Your task to perform on an android device: Go to ESPN.com Image 0: 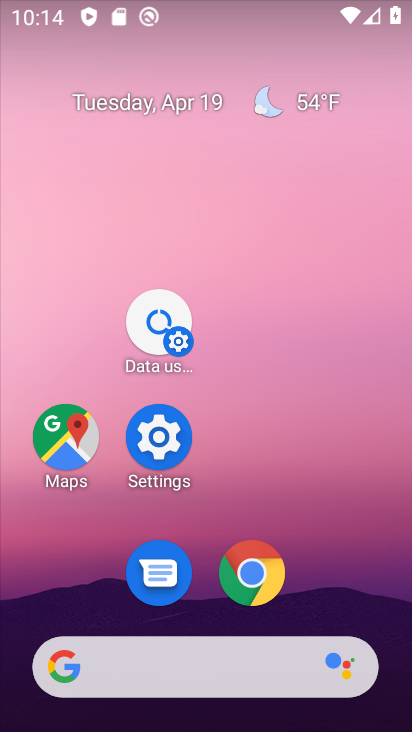
Step 0: click (262, 575)
Your task to perform on an android device: Go to ESPN.com Image 1: 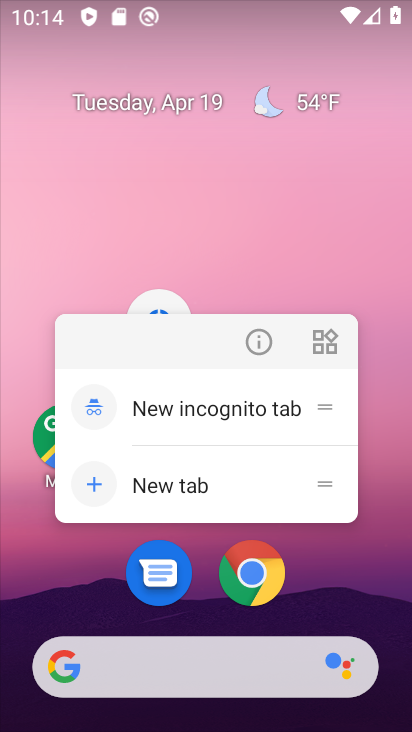
Step 1: click (262, 575)
Your task to perform on an android device: Go to ESPN.com Image 2: 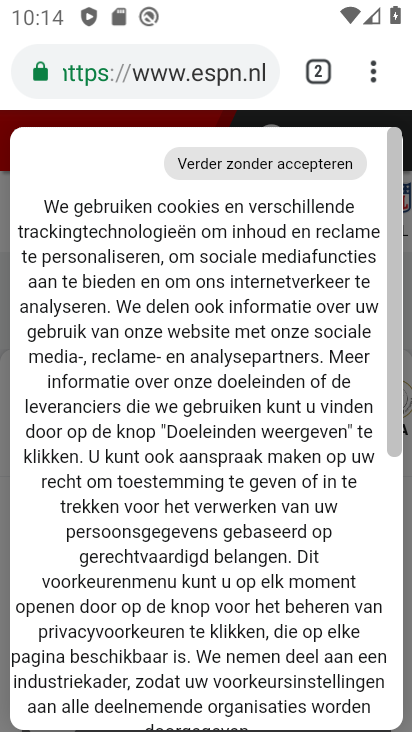
Step 2: task complete